Your task to perform on an android device: Go to settings Image 0: 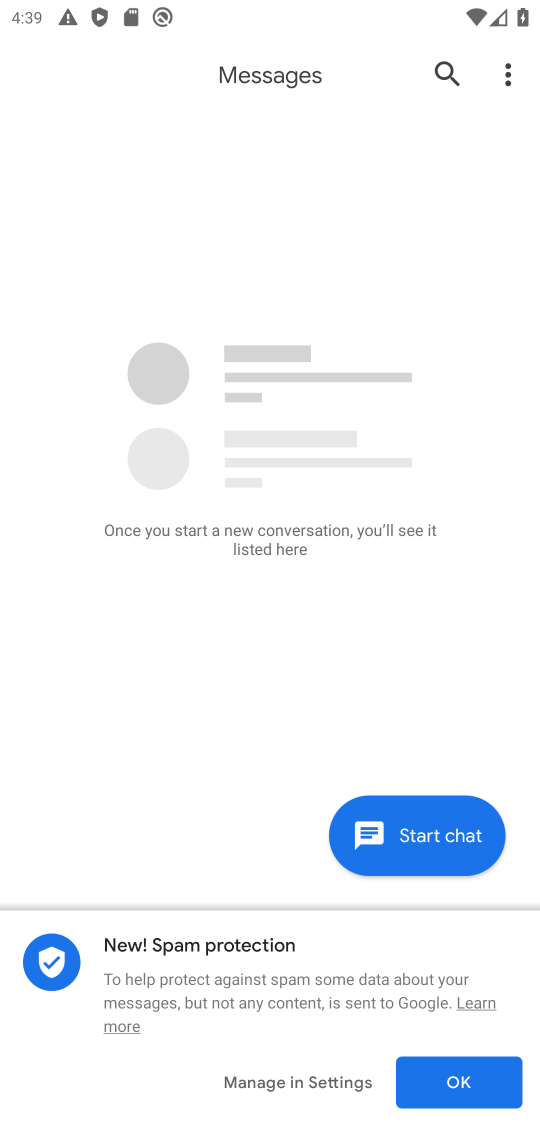
Step 0: press home button
Your task to perform on an android device: Go to settings Image 1: 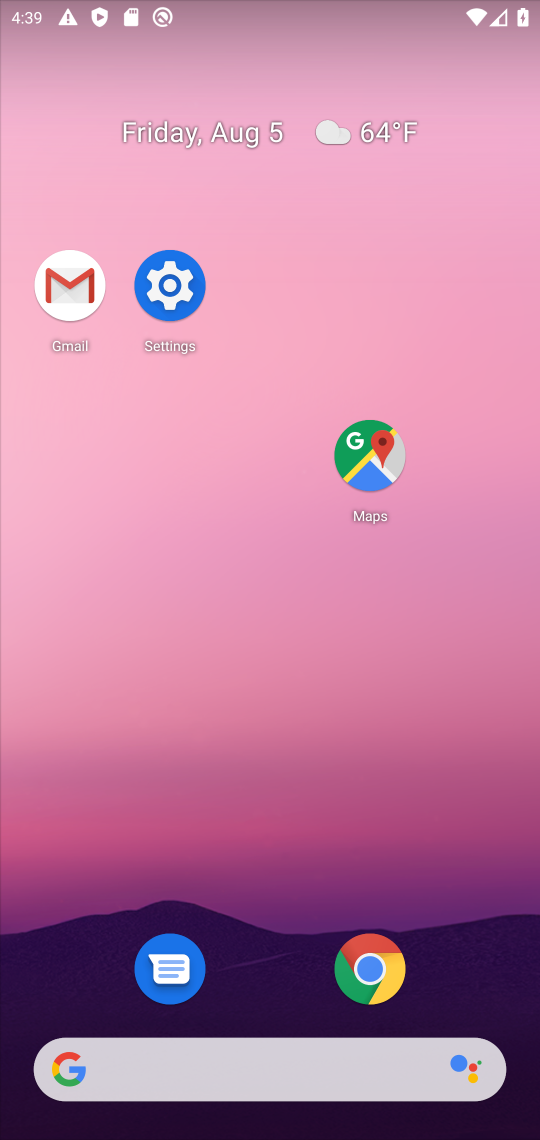
Step 1: click (171, 274)
Your task to perform on an android device: Go to settings Image 2: 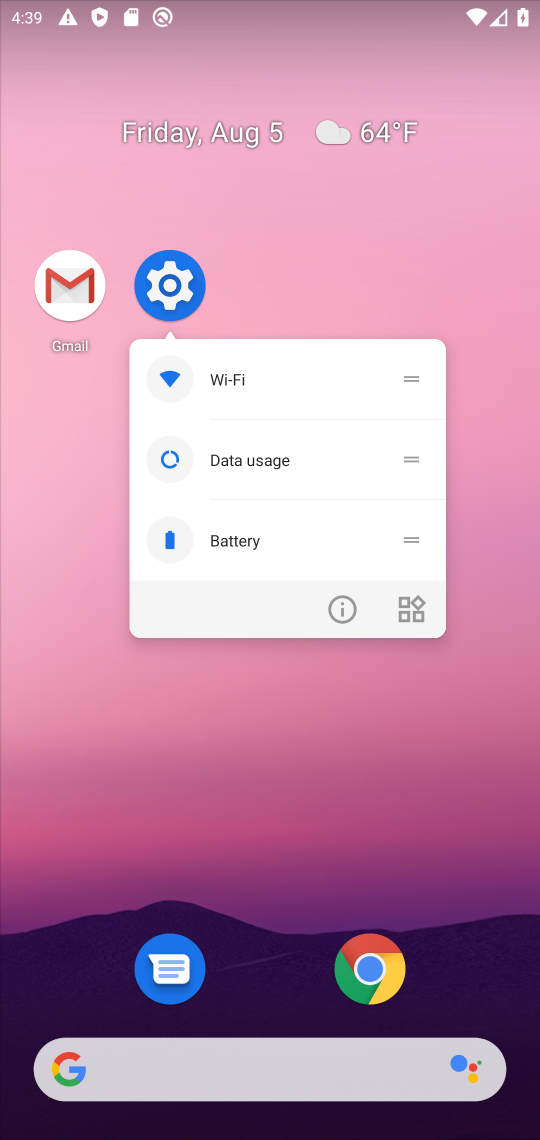
Step 2: click (171, 274)
Your task to perform on an android device: Go to settings Image 3: 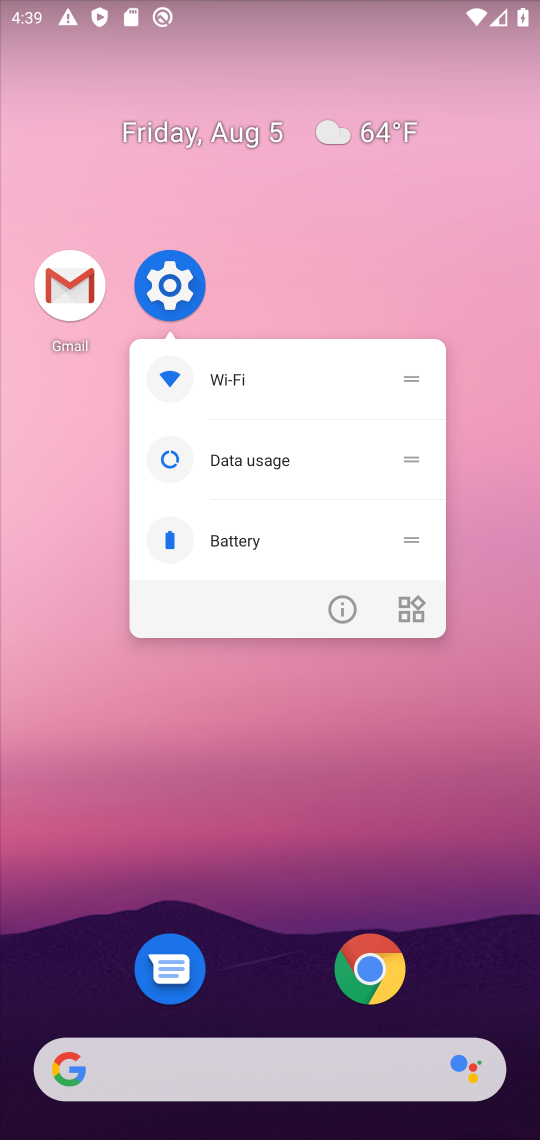
Step 3: click (171, 274)
Your task to perform on an android device: Go to settings Image 4: 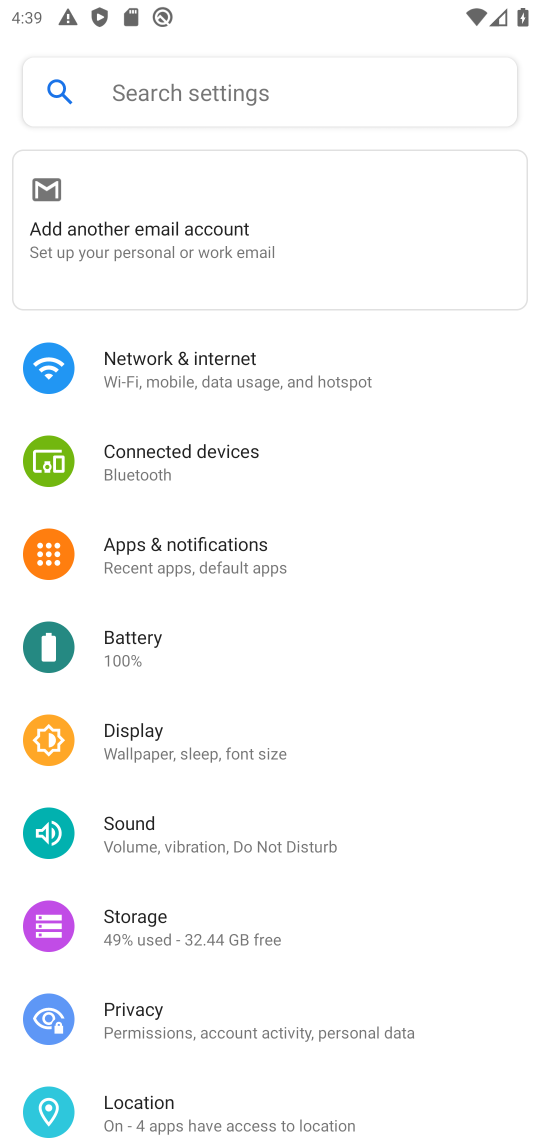
Step 4: task complete